Your task to perform on an android device: allow notifications from all sites in the chrome app Image 0: 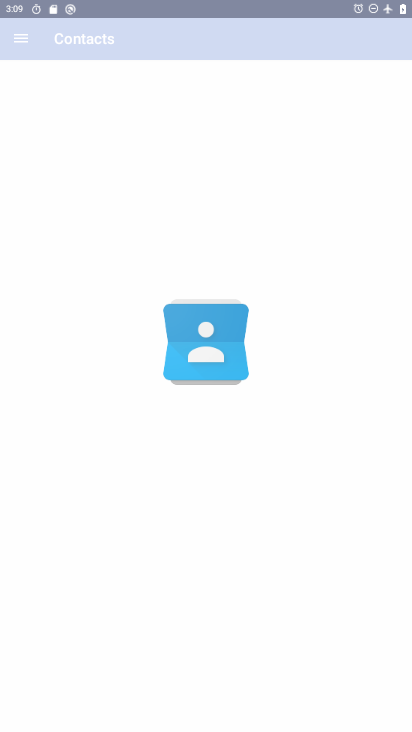
Step 0: drag from (243, 617) to (266, 158)
Your task to perform on an android device: allow notifications from all sites in the chrome app Image 1: 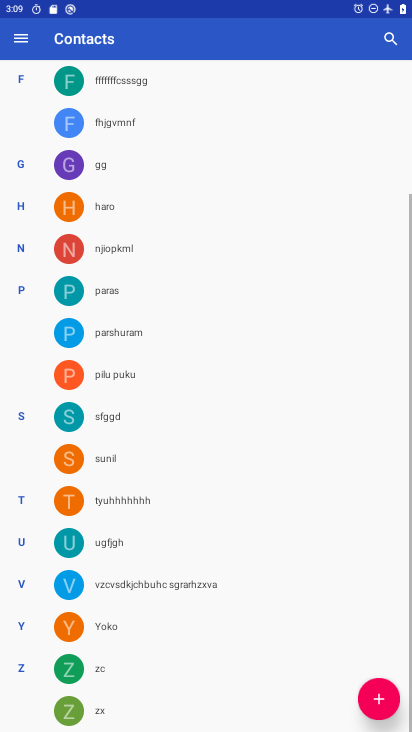
Step 1: press home button
Your task to perform on an android device: allow notifications from all sites in the chrome app Image 2: 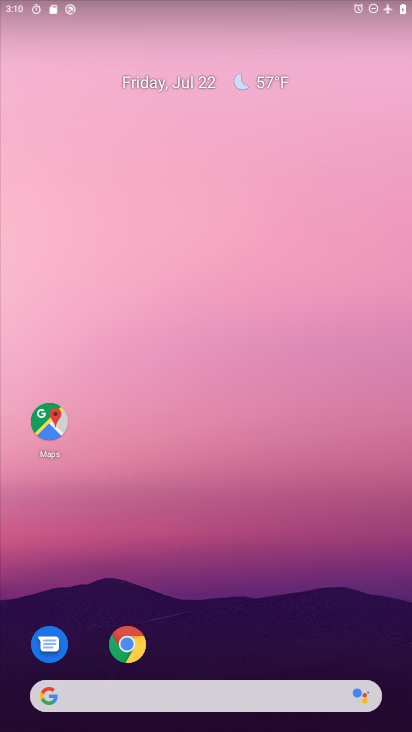
Step 2: click (139, 626)
Your task to perform on an android device: allow notifications from all sites in the chrome app Image 3: 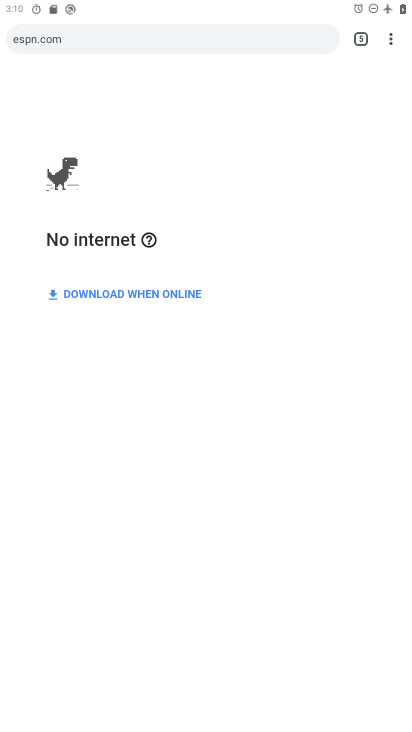
Step 3: click (385, 29)
Your task to perform on an android device: allow notifications from all sites in the chrome app Image 4: 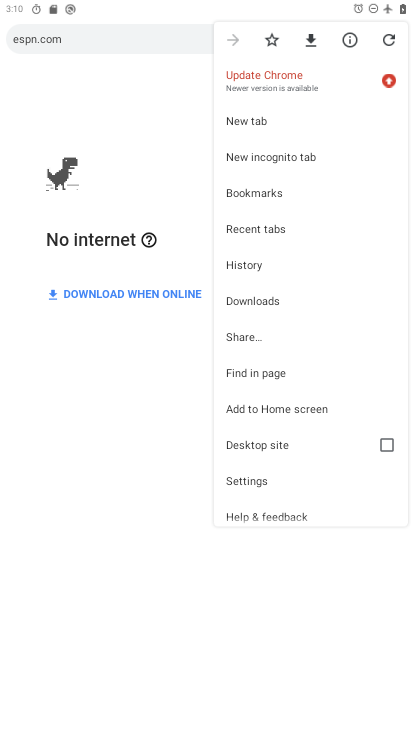
Step 4: click (257, 476)
Your task to perform on an android device: allow notifications from all sites in the chrome app Image 5: 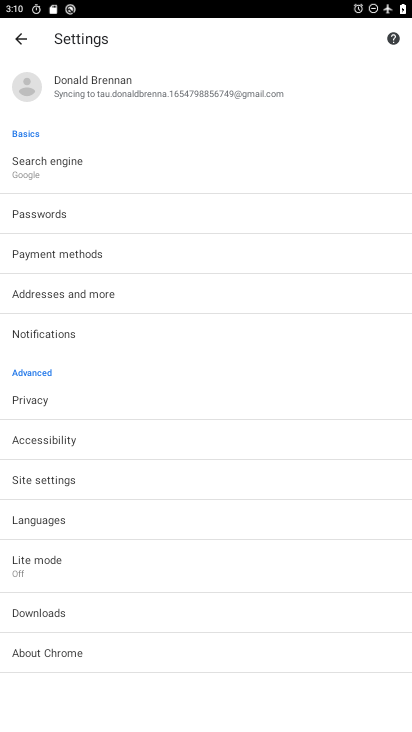
Step 5: click (87, 475)
Your task to perform on an android device: allow notifications from all sites in the chrome app Image 6: 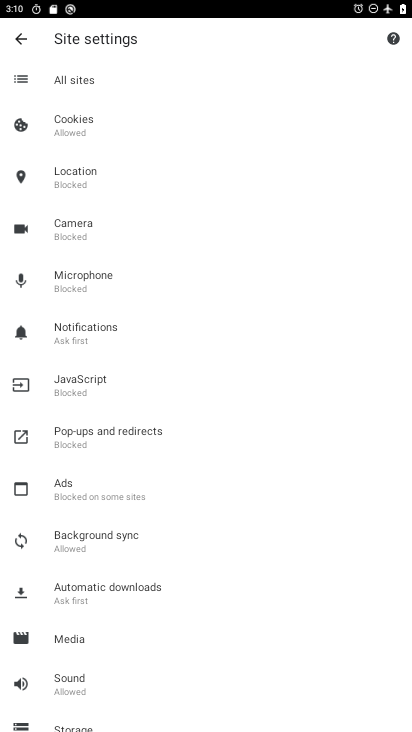
Step 6: click (107, 88)
Your task to perform on an android device: allow notifications from all sites in the chrome app Image 7: 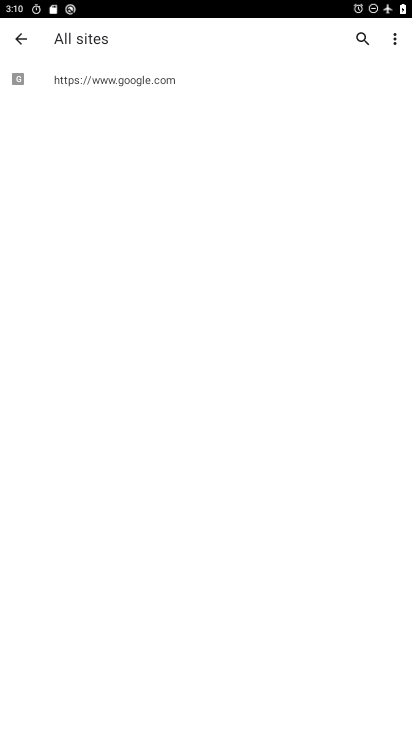
Step 7: click (107, 88)
Your task to perform on an android device: allow notifications from all sites in the chrome app Image 8: 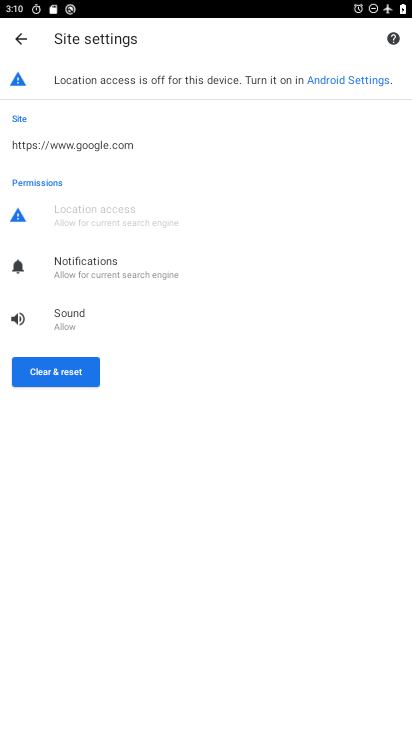
Step 8: click (73, 265)
Your task to perform on an android device: allow notifications from all sites in the chrome app Image 9: 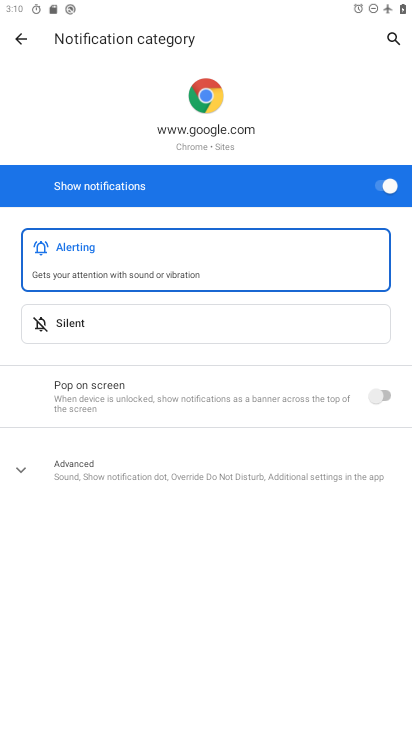
Step 9: task complete